Your task to perform on an android device: Turn on the flashlight Image 0: 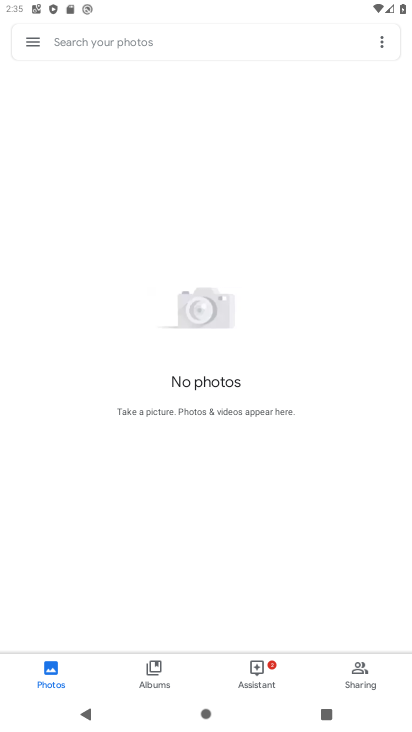
Step 0: press home button
Your task to perform on an android device: Turn on the flashlight Image 1: 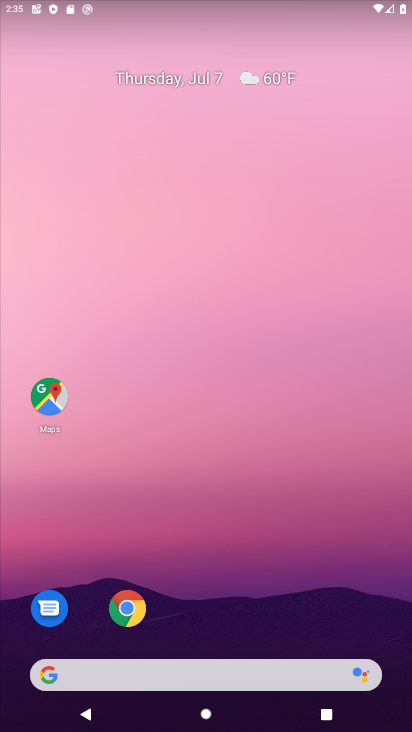
Step 1: drag from (224, 624) to (245, 47)
Your task to perform on an android device: Turn on the flashlight Image 2: 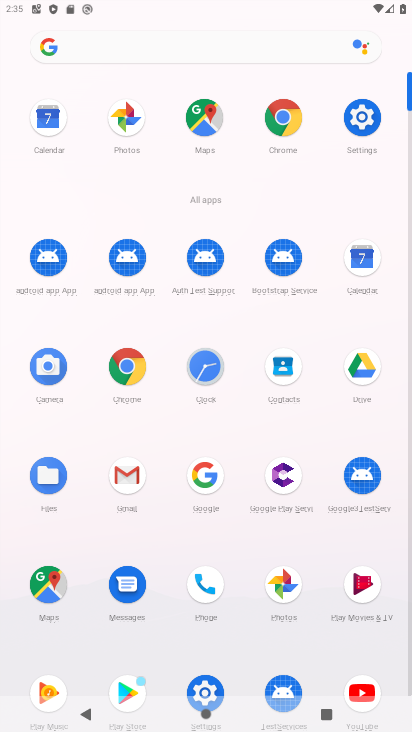
Step 2: click (357, 108)
Your task to perform on an android device: Turn on the flashlight Image 3: 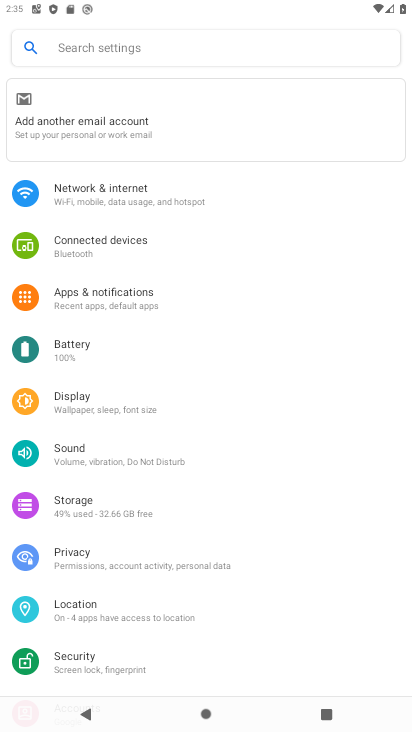
Step 3: click (107, 48)
Your task to perform on an android device: Turn on the flashlight Image 4: 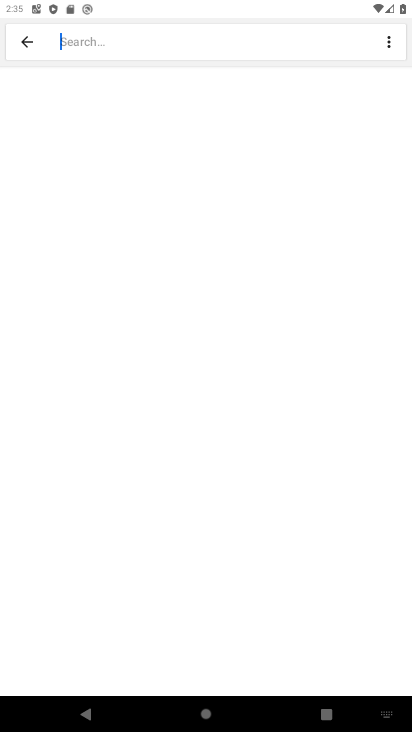
Step 4: type "flashlight"
Your task to perform on an android device: Turn on the flashlight Image 5: 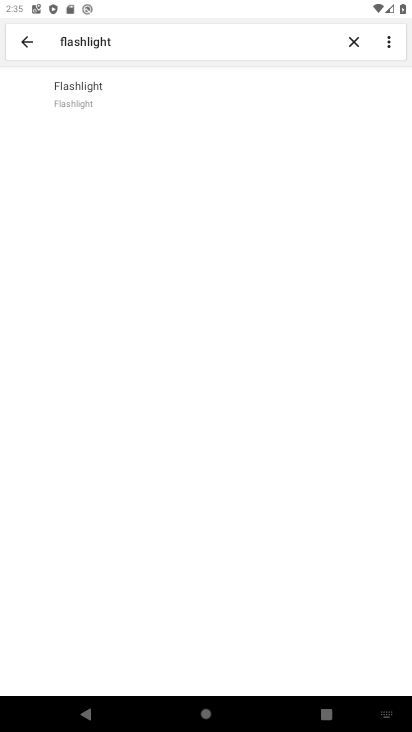
Step 5: click (105, 94)
Your task to perform on an android device: Turn on the flashlight Image 6: 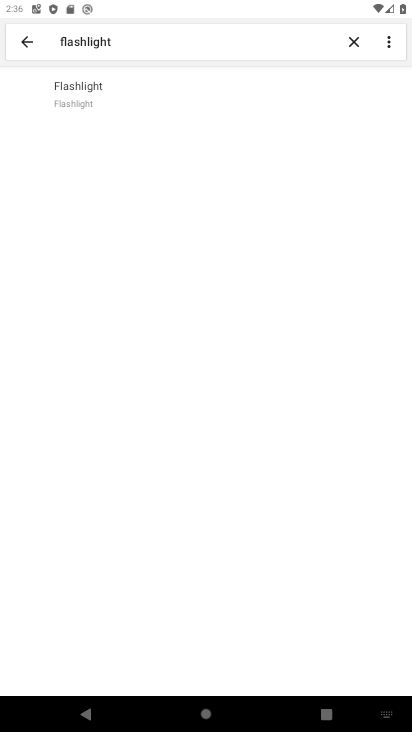
Step 6: task complete